Your task to perform on an android device: Open Yahoo.com Image 0: 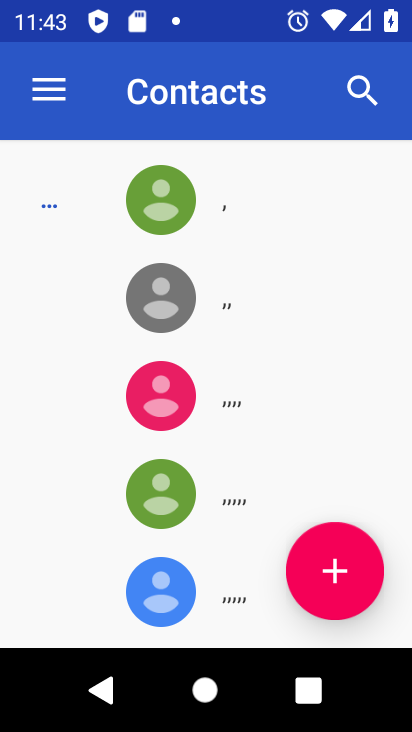
Step 0: press home button
Your task to perform on an android device: Open Yahoo.com Image 1: 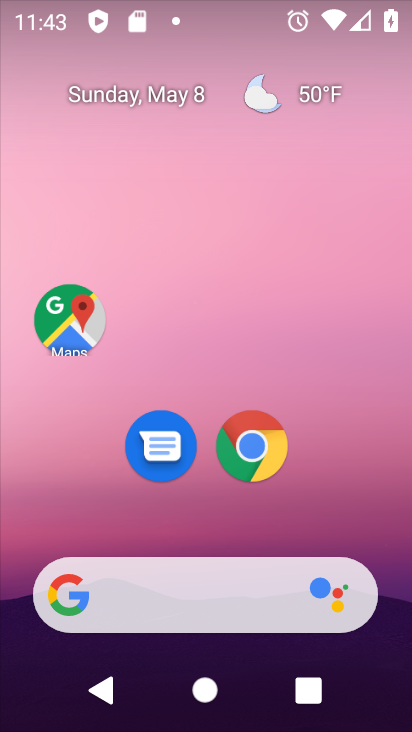
Step 1: click (245, 450)
Your task to perform on an android device: Open Yahoo.com Image 2: 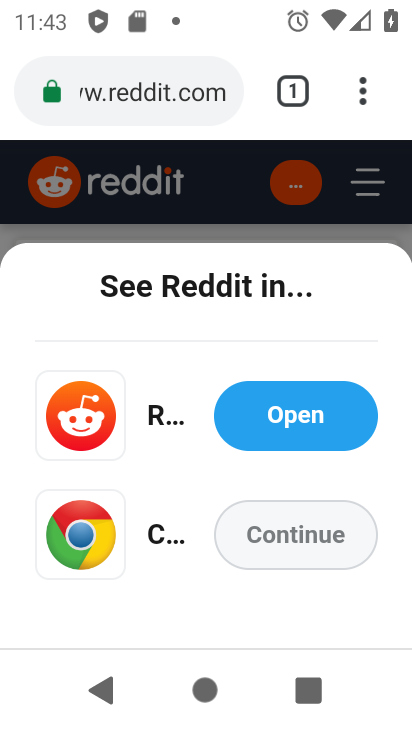
Step 2: click (133, 95)
Your task to perform on an android device: Open Yahoo.com Image 3: 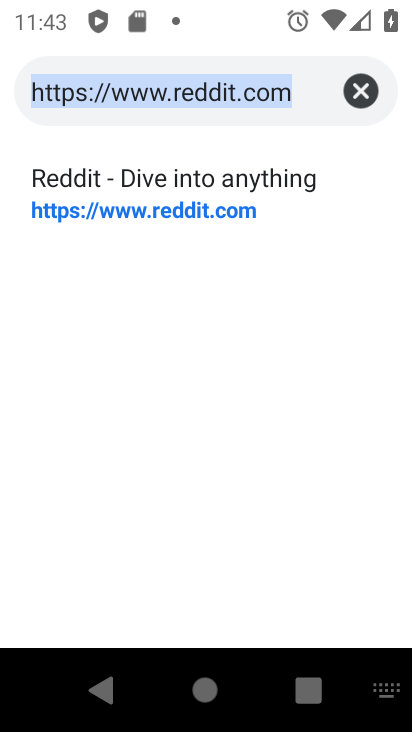
Step 3: type "yahoo.com"
Your task to perform on an android device: Open Yahoo.com Image 4: 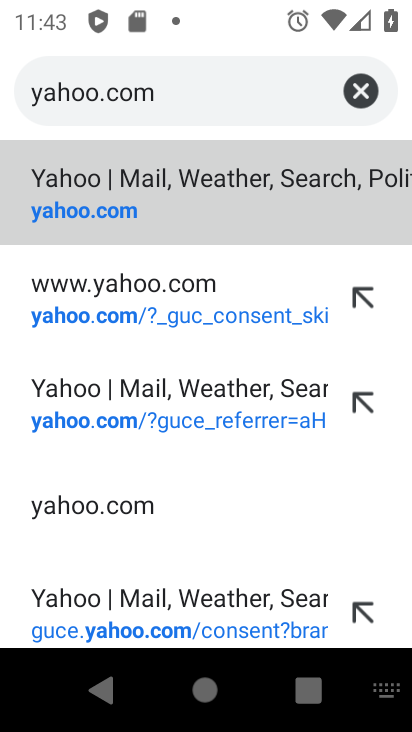
Step 4: click (145, 203)
Your task to perform on an android device: Open Yahoo.com Image 5: 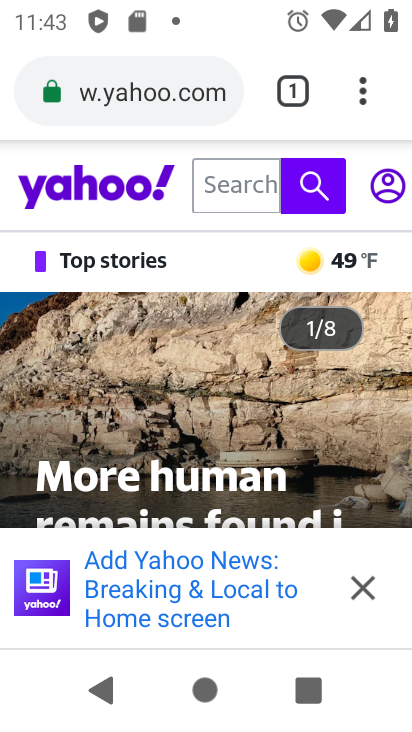
Step 5: task complete